Your task to perform on an android device: Open Chrome and go to settings Image 0: 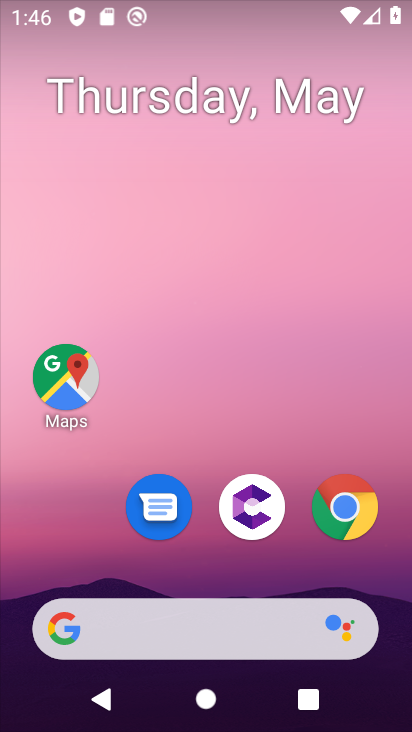
Step 0: click (361, 502)
Your task to perform on an android device: Open Chrome and go to settings Image 1: 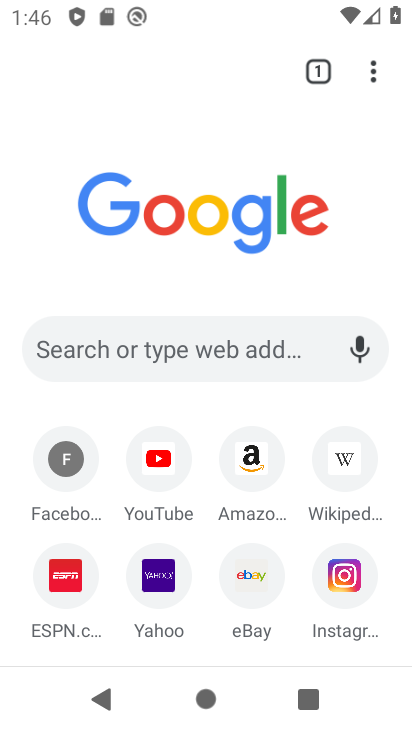
Step 1: click (372, 66)
Your task to perform on an android device: Open Chrome and go to settings Image 2: 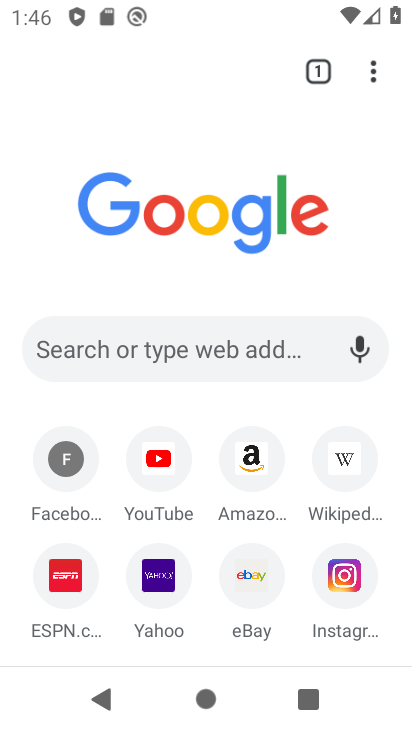
Step 2: click (372, 66)
Your task to perform on an android device: Open Chrome and go to settings Image 3: 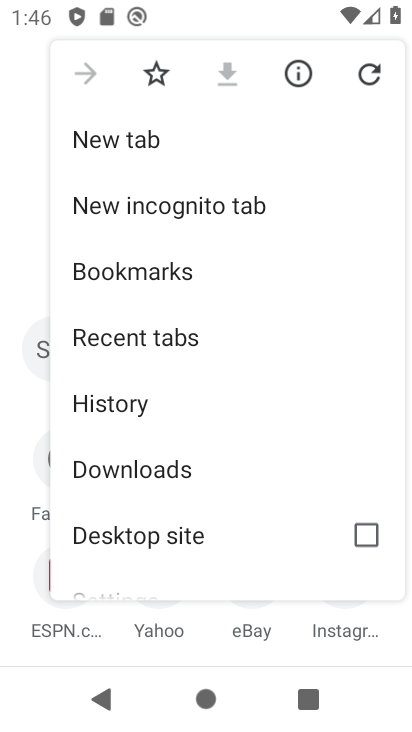
Step 3: drag from (250, 495) to (250, 171)
Your task to perform on an android device: Open Chrome and go to settings Image 4: 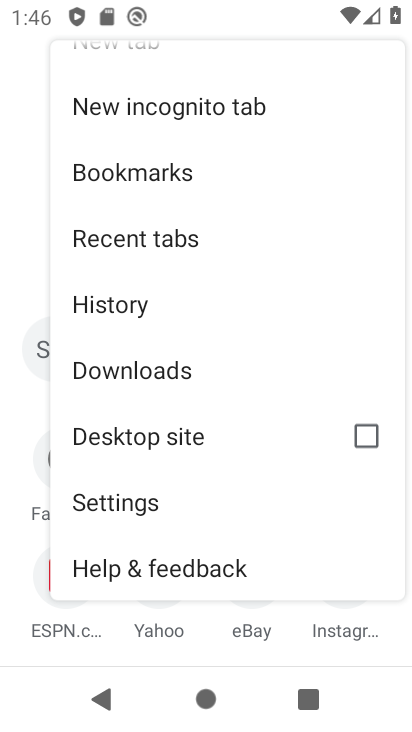
Step 4: click (125, 504)
Your task to perform on an android device: Open Chrome and go to settings Image 5: 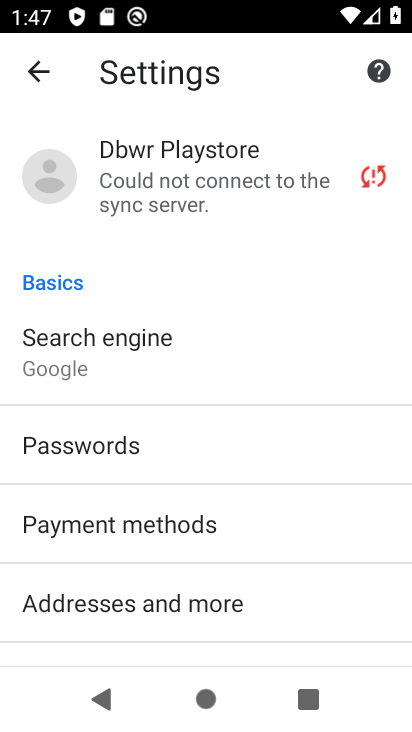
Step 5: task complete